Your task to perform on an android device: What's the weather? Image 0: 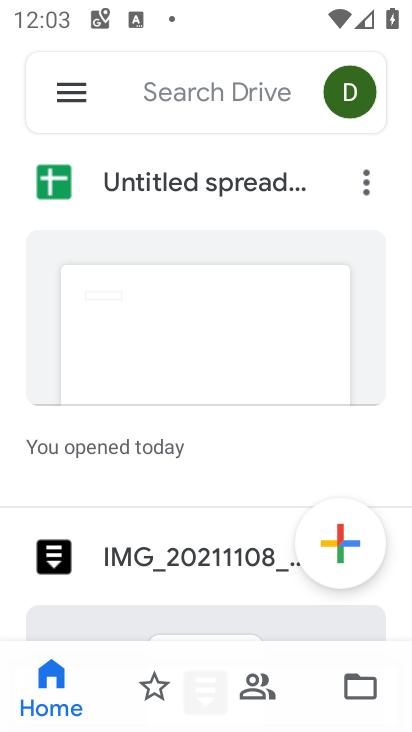
Step 0: press home button
Your task to perform on an android device: What's the weather? Image 1: 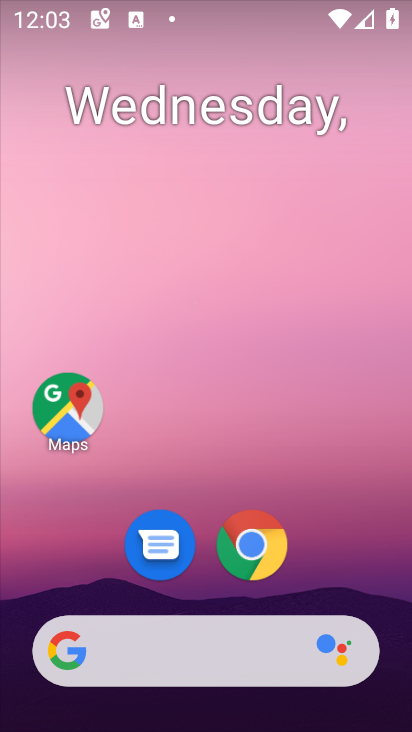
Step 1: click (256, 535)
Your task to perform on an android device: What's the weather? Image 2: 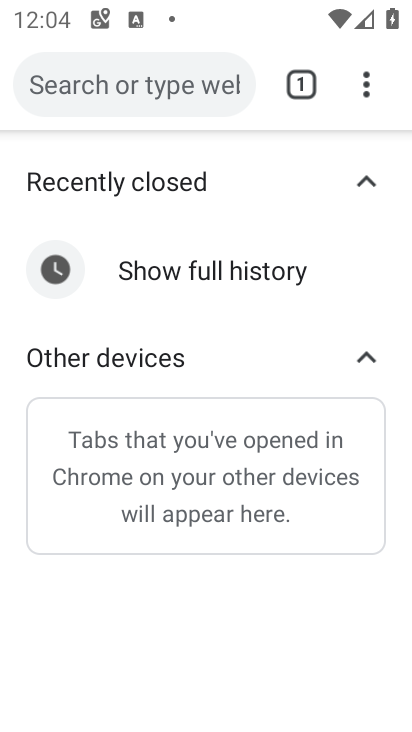
Step 2: click (137, 91)
Your task to perform on an android device: What's the weather? Image 3: 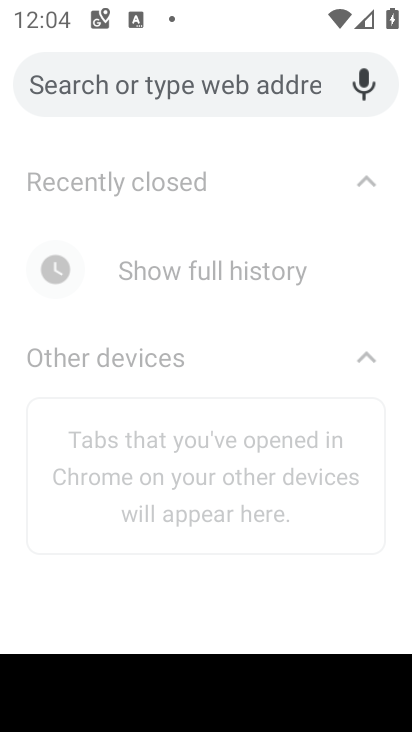
Step 3: type "weather"
Your task to perform on an android device: What's the weather? Image 4: 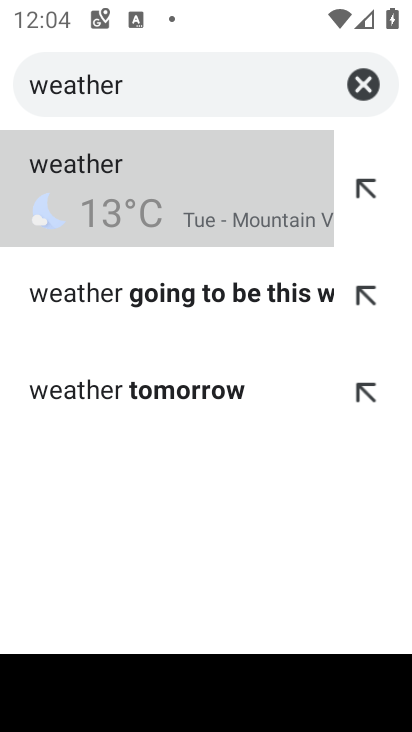
Step 4: click (178, 172)
Your task to perform on an android device: What's the weather? Image 5: 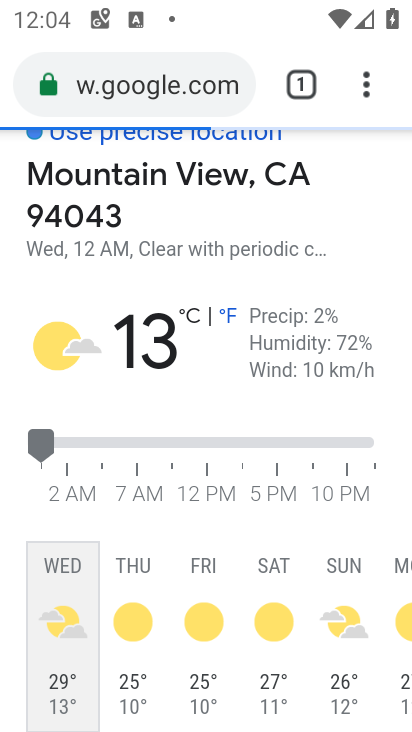
Step 5: task complete